Your task to perform on an android device: Open my contact list Image 0: 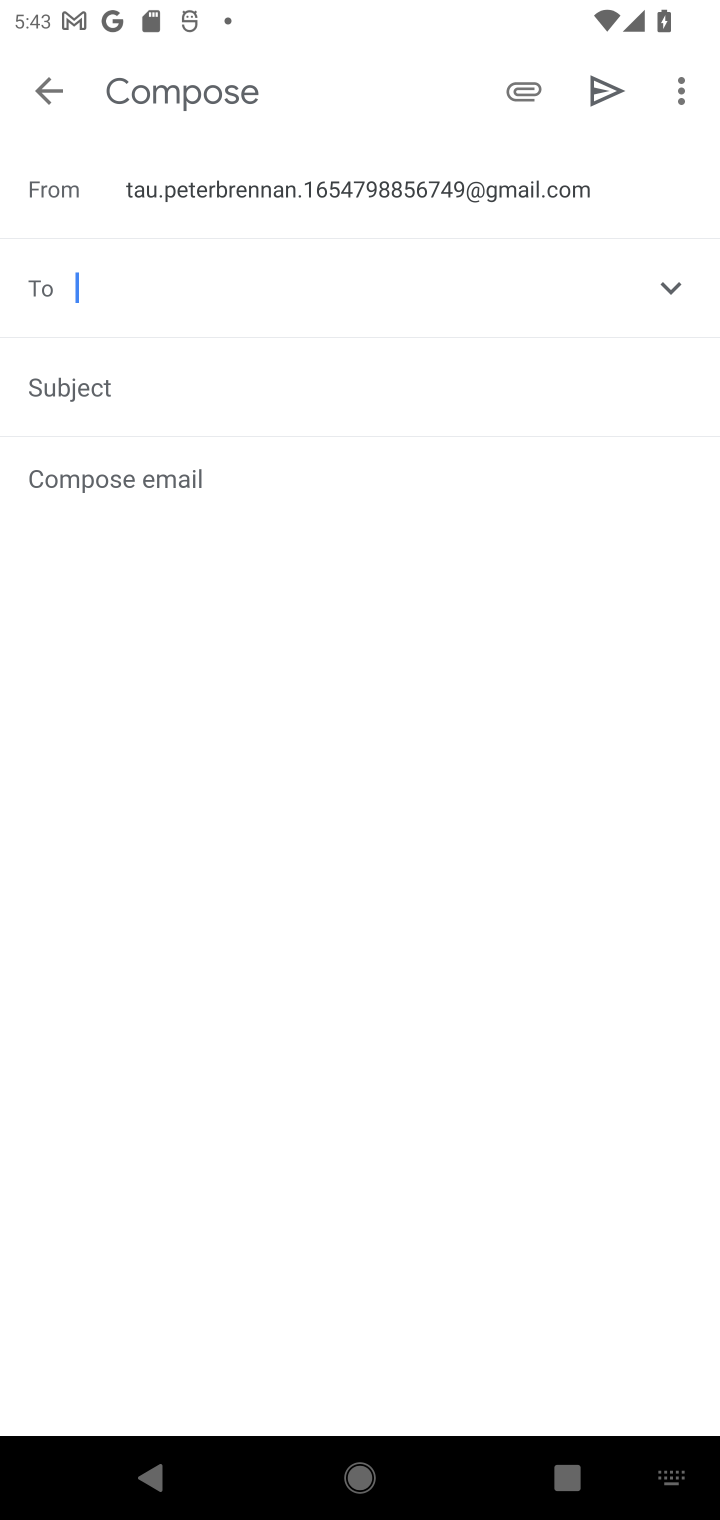
Step 0: press home button
Your task to perform on an android device: Open my contact list Image 1: 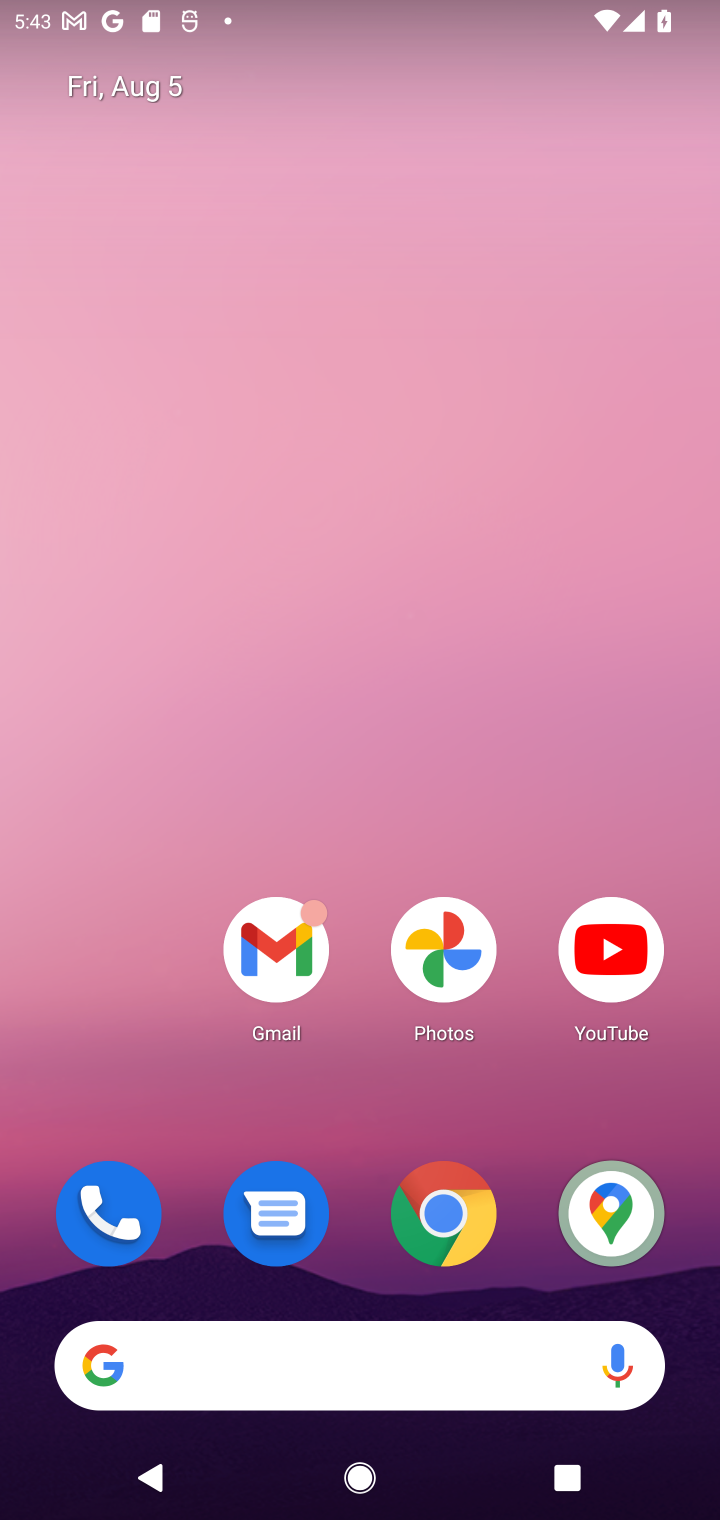
Step 1: drag from (375, 1281) to (450, 307)
Your task to perform on an android device: Open my contact list Image 2: 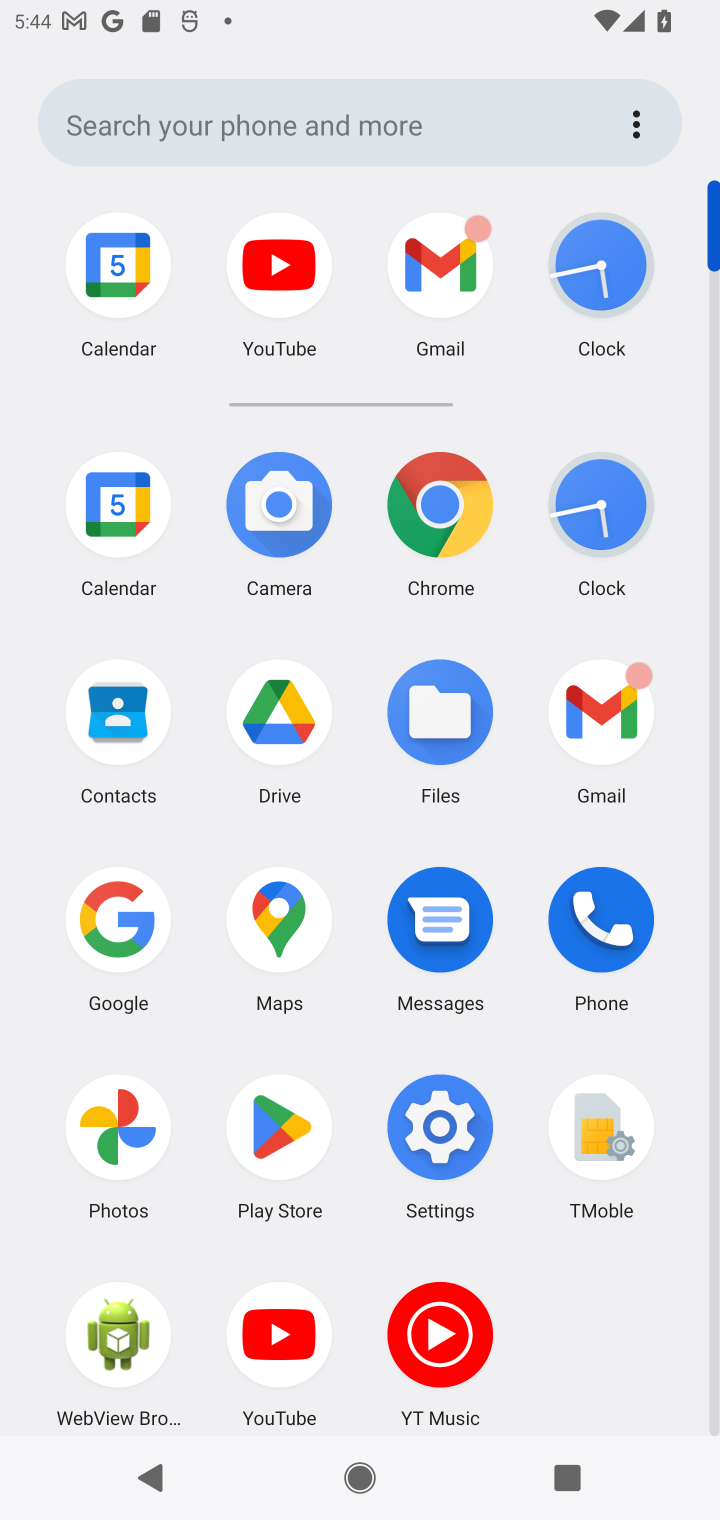
Step 2: click (133, 753)
Your task to perform on an android device: Open my contact list Image 3: 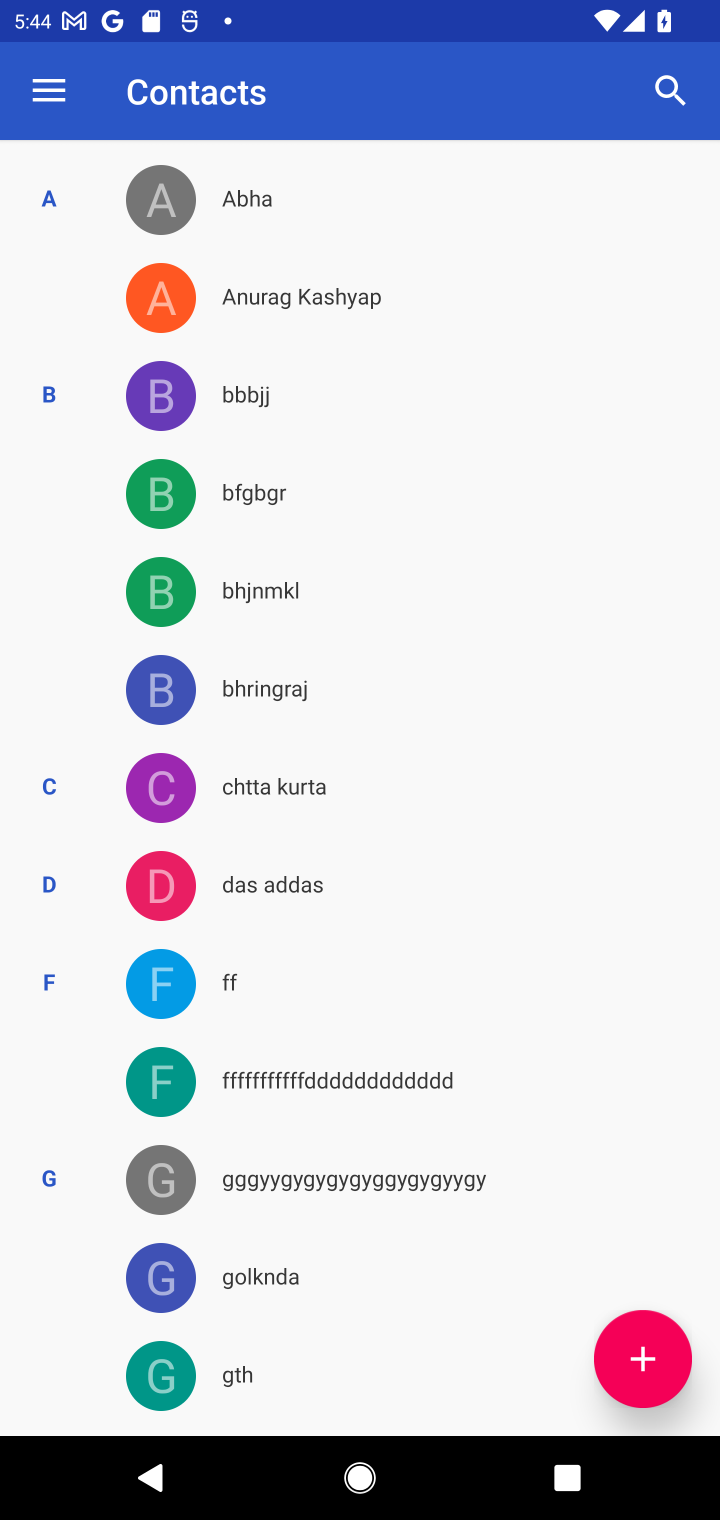
Step 3: task complete